Your task to perform on an android device: When is my next meeting? Image 0: 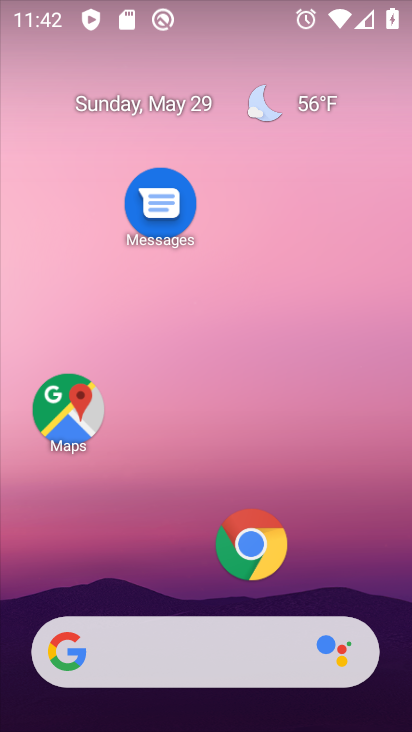
Step 0: drag from (193, 590) to (245, 54)
Your task to perform on an android device: When is my next meeting? Image 1: 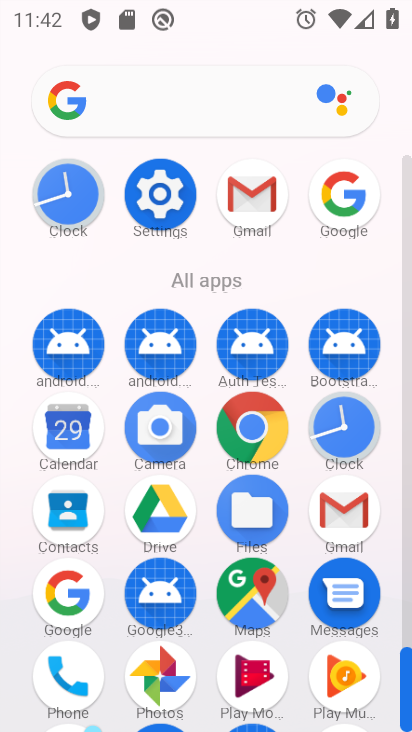
Step 1: click (66, 424)
Your task to perform on an android device: When is my next meeting? Image 2: 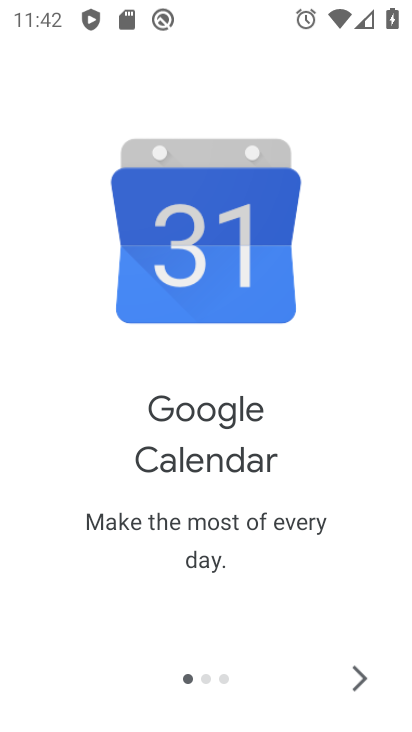
Step 2: click (348, 670)
Your task to perform on an android device: When is my next meeting? Image 3: 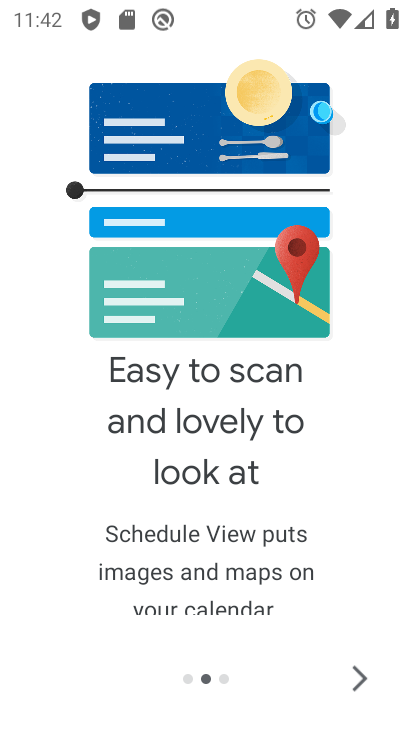
Step 3: click (348, 670)
Your task to perform on an android device: When is my next meeting? Image 4: 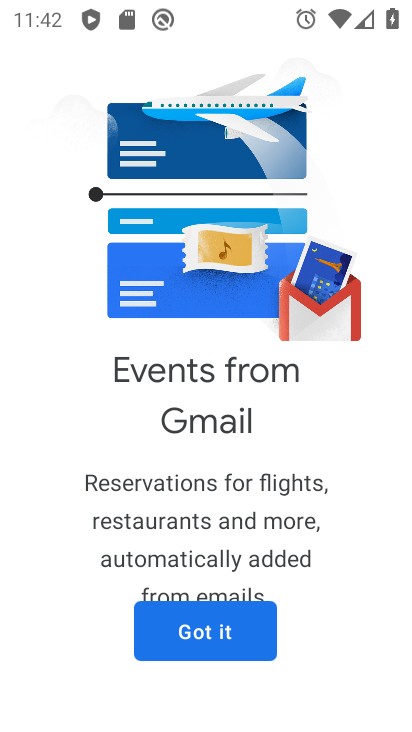
Step 4: click (215, 630)
Your task to perform on an android device: When is my next meeting? Image 5: 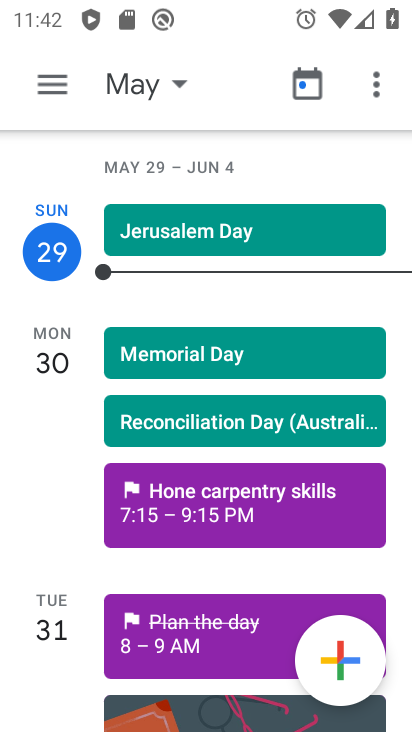
Step 5: task complete